Your task to perform on an android device: change the upload size in google photos Image 0: 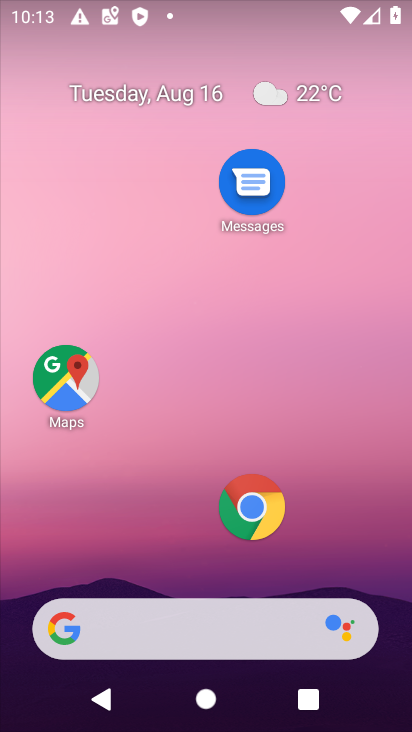
Step 0: drag from (157, 495) to (283, 0)
Your task to perform on an android device: change the upload size in google photos Image 1: 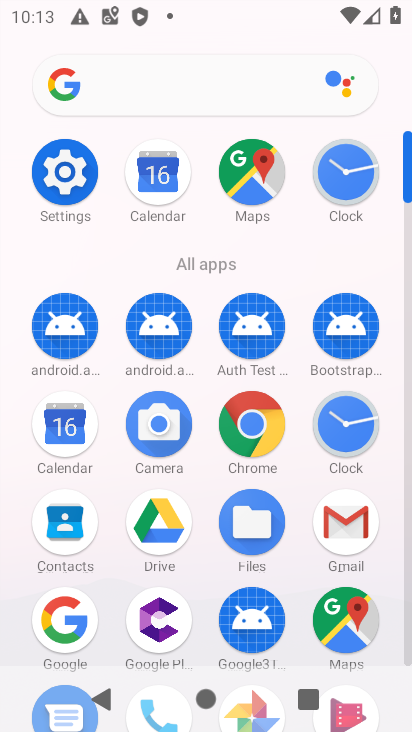
Step 1: drag from (192, 611) to (230, 160)
Your task to perform on an android device: change the upload size in google photos Image 2: 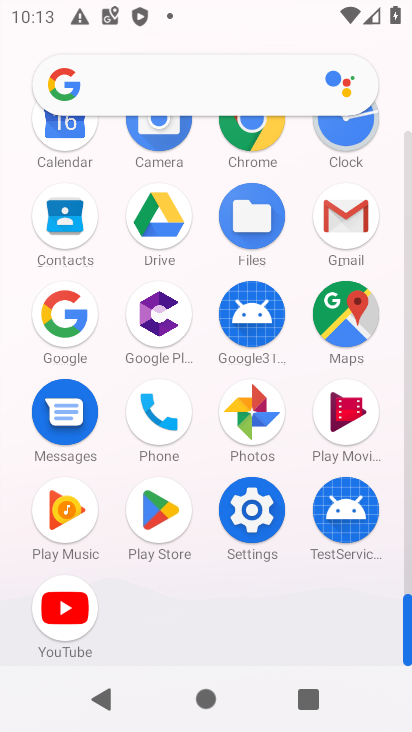
Step 2: click (261, 421)
Your task to perform on an android device: change the upload size in google photos Image 3: 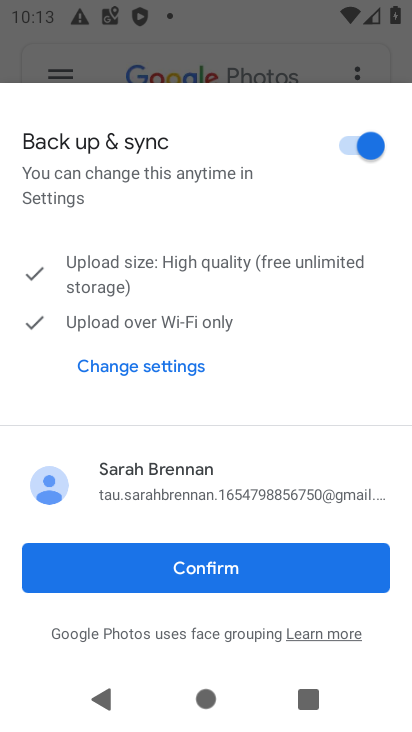
Step 3: click (200, 542)
Your task to perform on an android device: change the upload size in google photos Image 4: 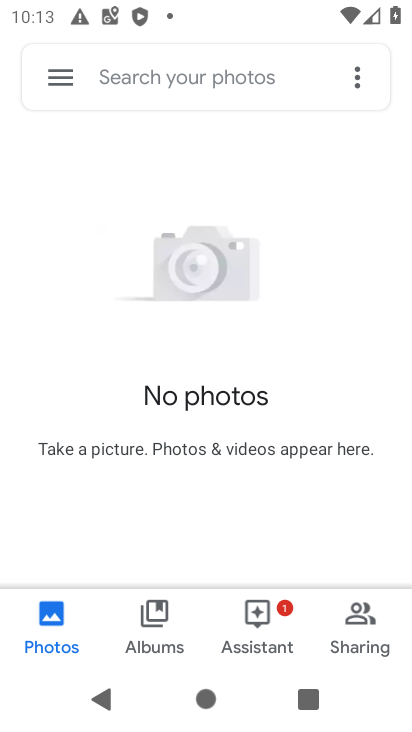
Step 4: click (75, 76)
Your task to perform on an android device: change the upload size in google photos Image 5: 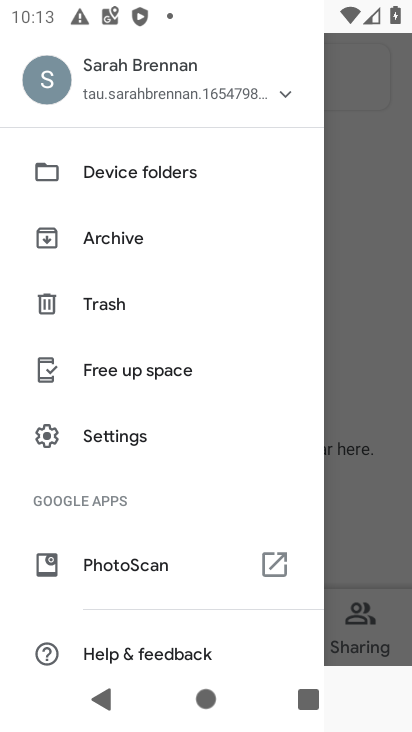
Step 5: click (126, 432)
Your task to perform on an android device: change the upload size in google photos Image 6: 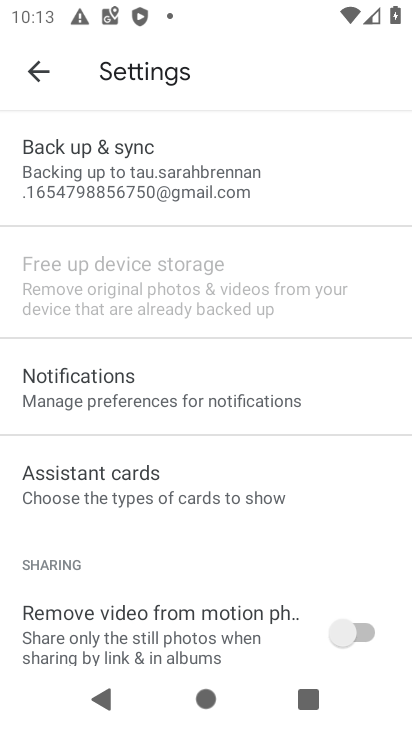
Step 6: click (154, 169)
Your task to perform on an android device: change the upload size in google photos Image 7: 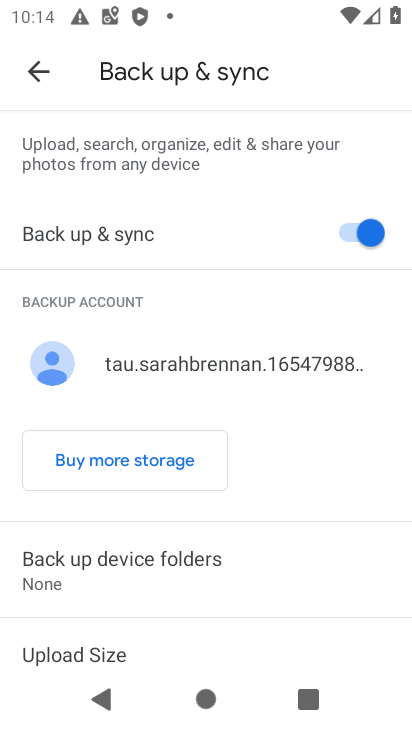
Step 7: click (96, 647)
Your task to perform on an android device: change the upload size in google photos Image 8: 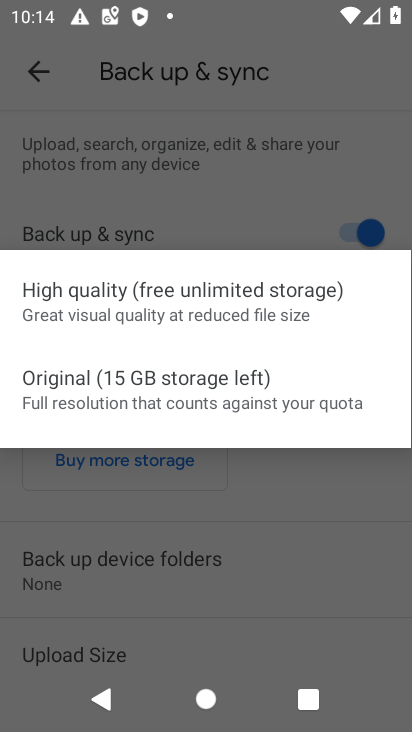
Step 8: click (180, 571)
Your task to perform on an android device: change the upload size in google photos Image 9: 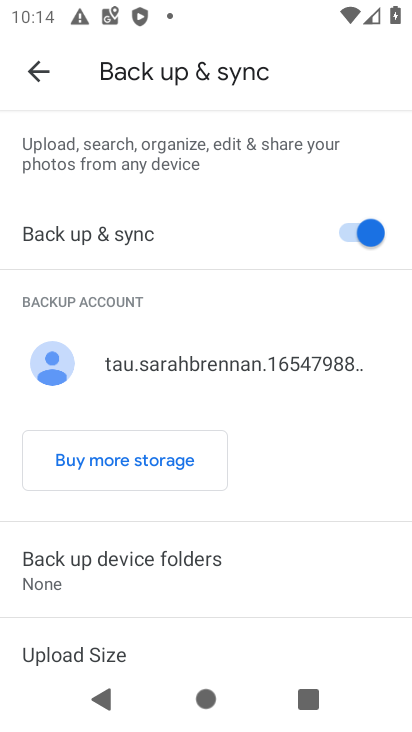
Step 9: drag from (180, 571) to (237, 230)
Your task to perform on an android device: change the upload size in google photos Image 10: 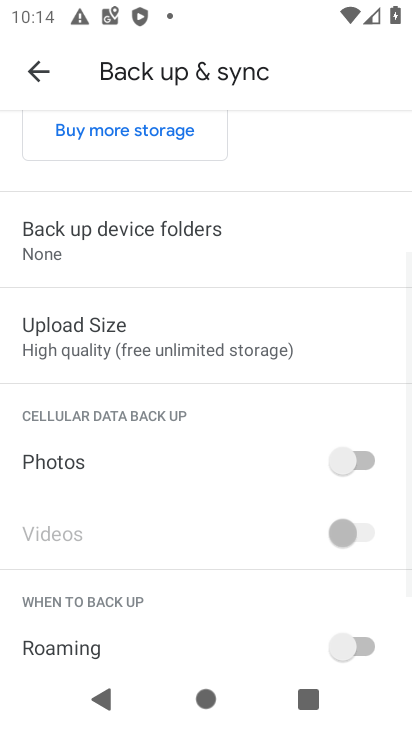
Step 10: click (111, 351)
Your task to perform on an android device: change the upload size in google photos Image 11: 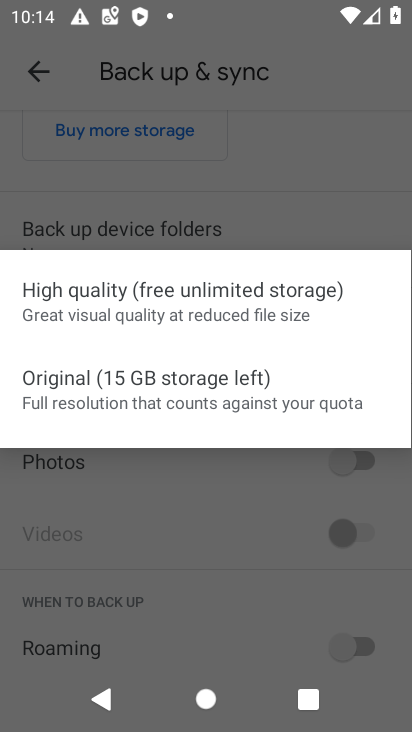
Step 11: click (81, 395)
Your task to perform on an android device: change the upload size in google photos Image 12: 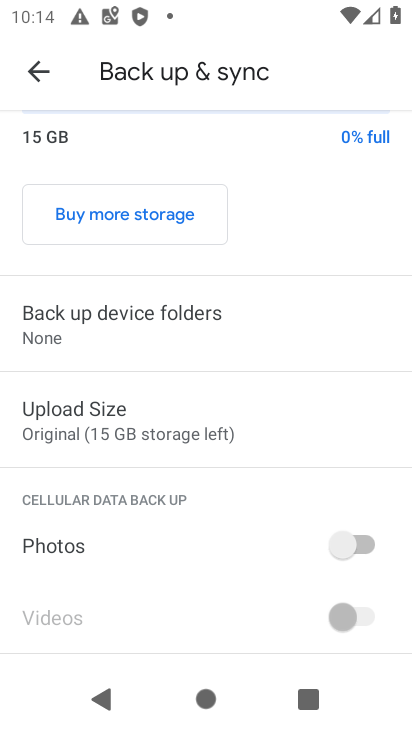
Step 12: task complete